Your task to perform on an android device: Open my contact list Image 0: 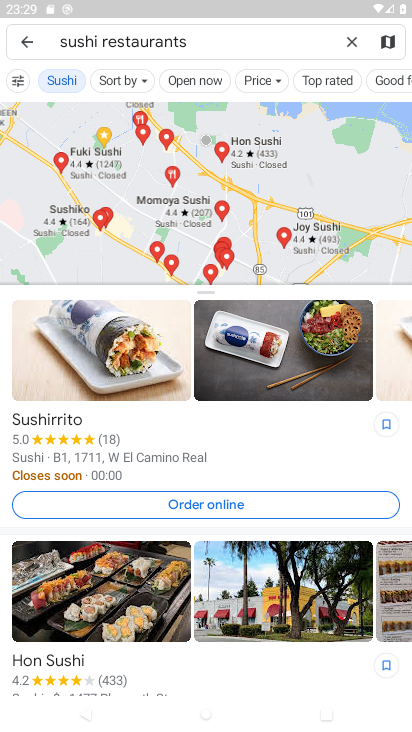
Step 0: press home button
Your task to perform on an android device: Open my contact list Image 1: 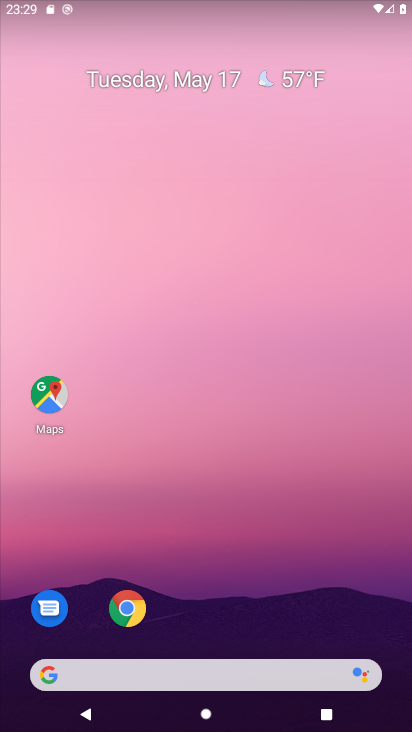
Step 1: drag from (234, 594) to (347, 38)
Your task to perform on an android device: Open my contact list Image 2: 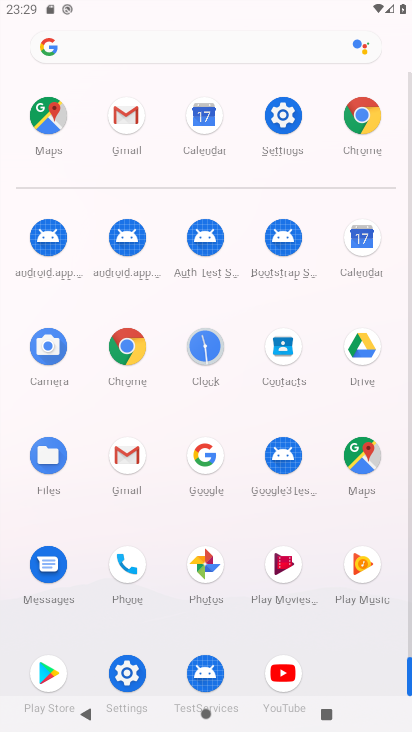
Step 2: click (276, 360)
Your task to perform on an android device: Open my contact list Image 3: 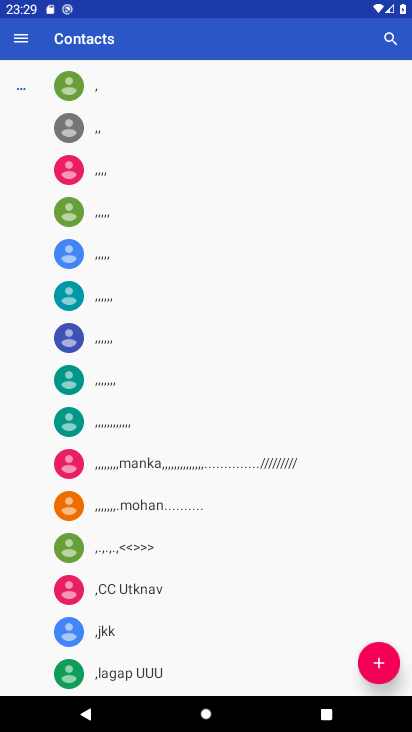
Step 3: task complete